Your task to perform on an android device: open wifi settings Image 0: 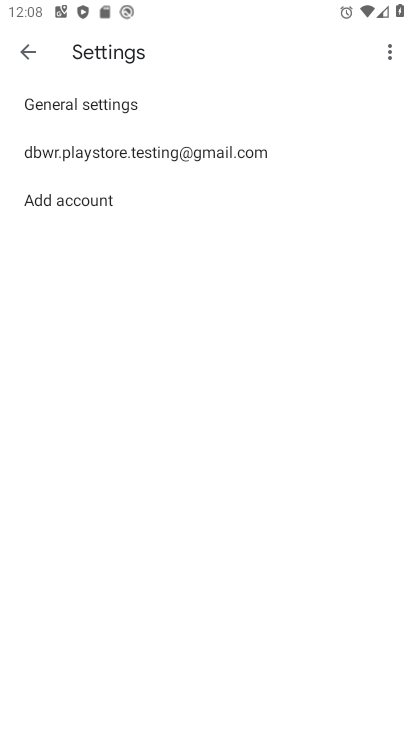
Step 0: press back button
Your task to perform on an android device: open wifi settings Image 1: 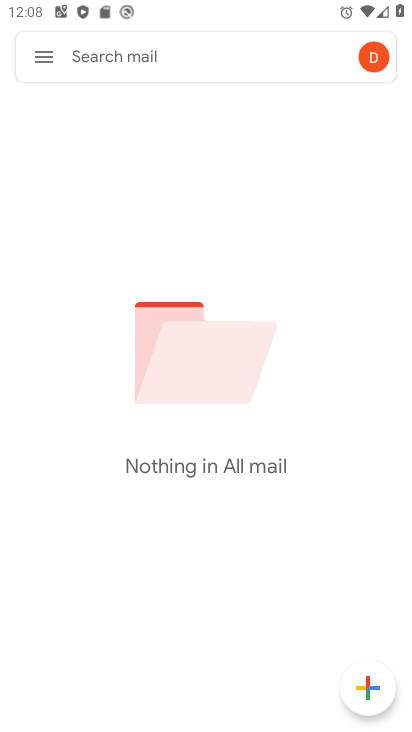
Step 1: press home button
Your task to perform on an android device: open wifi settings Image 2: 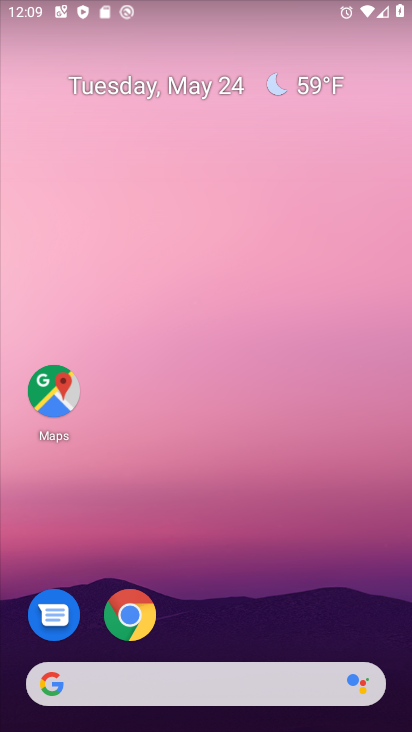
Step 2: drag from (306, 587) to (246, 45)
Your task to perform on an android device: open wifi settings Image 3: 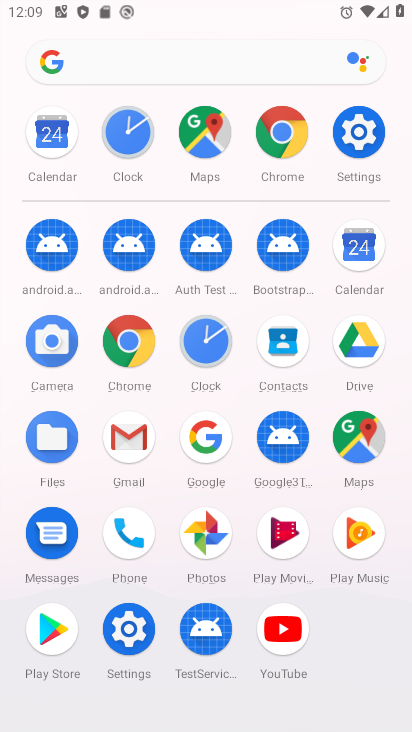
Step 3: drag from (5, 525) to (5, 226)
Your task to perform on an android device: open wifi settings Image 4: 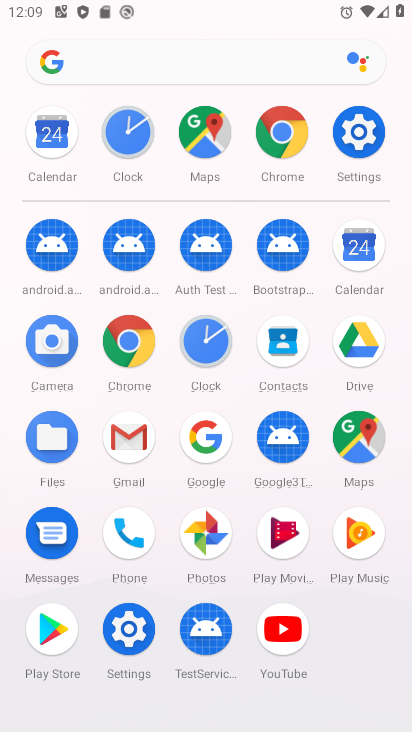
Step 4: click (127, 630)
Your task to perform on an android device: open wifi settings Image 5: 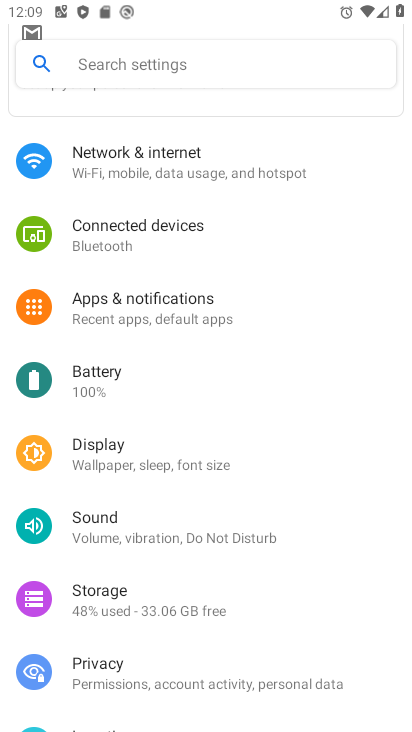
Step 5: click (184, 164)
Your task to perform on an android device: open wifi settings Image 6: 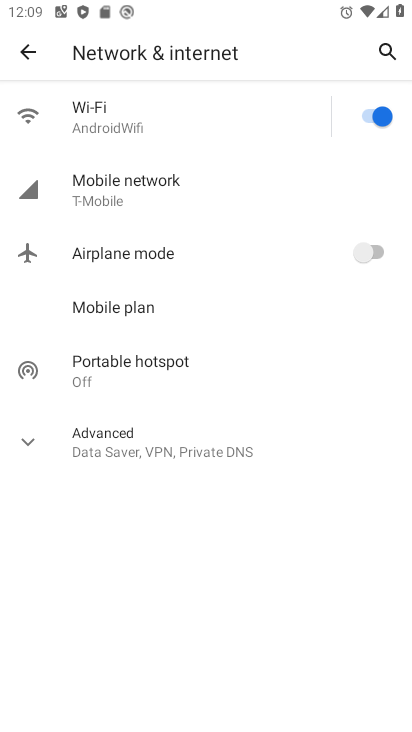
Step 6: click (135, 128)
Your task to perform on an android device: open wifi settings Image 7: 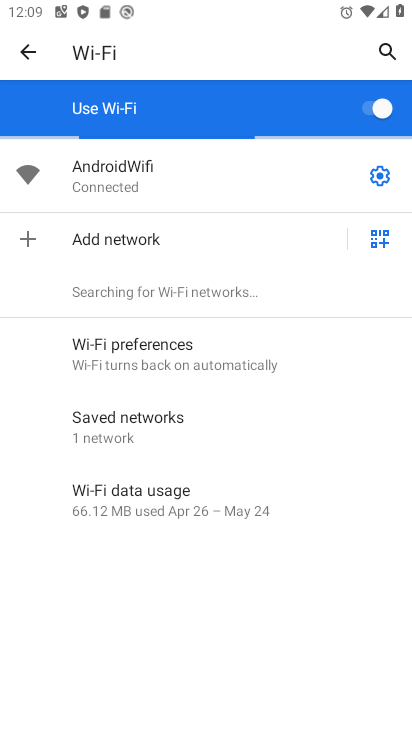
Step 7: task complete